Your task to perform on an android device: Open Google Chrome and open the bookmarks view Image 0: 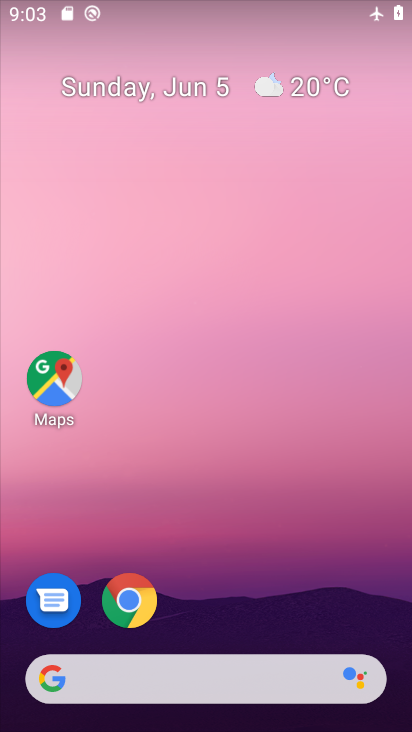
Step 0: click (132, 596)
Your task to perform on an android device: Open Google Chrome and open the bookmarks view Image 1: 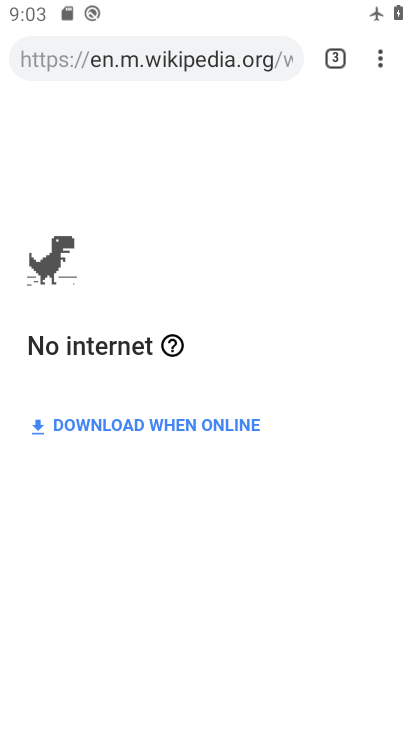
Step 1: click (380, 53)
Your task to perform on an android device: Open Google Chrome and open the bookmarks view Image 2: 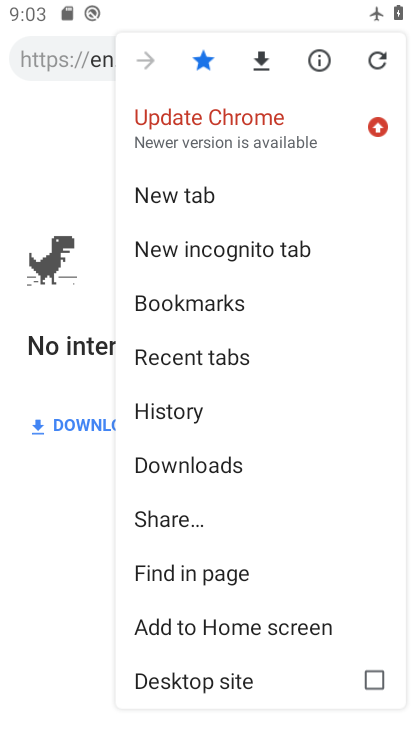
Step 2: click (219, 293)
Your task to perform on an android device: Open Google Chrome and open the bookmarks view Image 3: 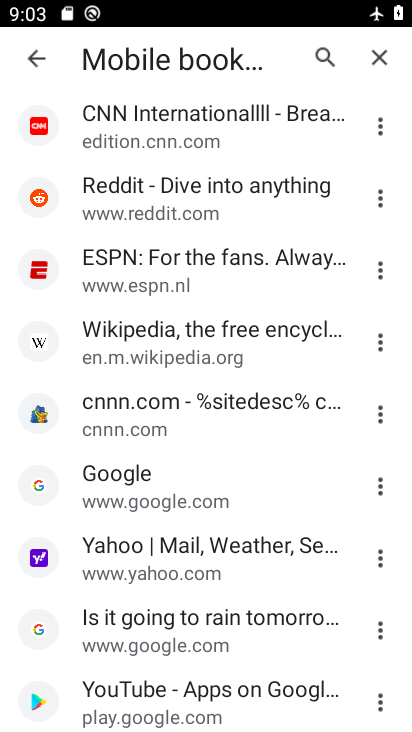
Step 3: task complete